Your task to perform on an android device: Go to Google Image 0: 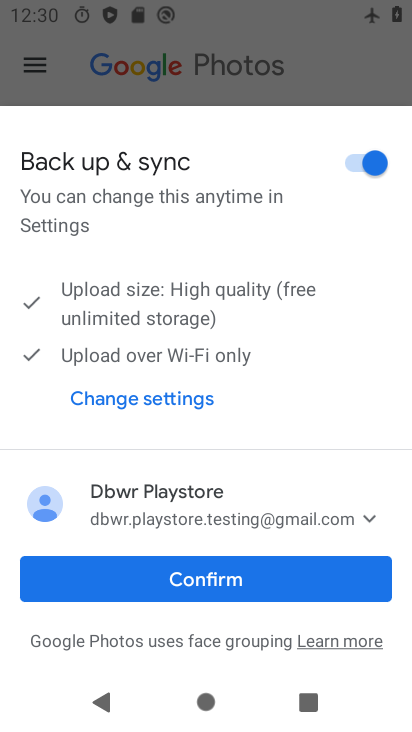
Step 0: press home button
Your task to perform on an android device: Go to Google Image 1: 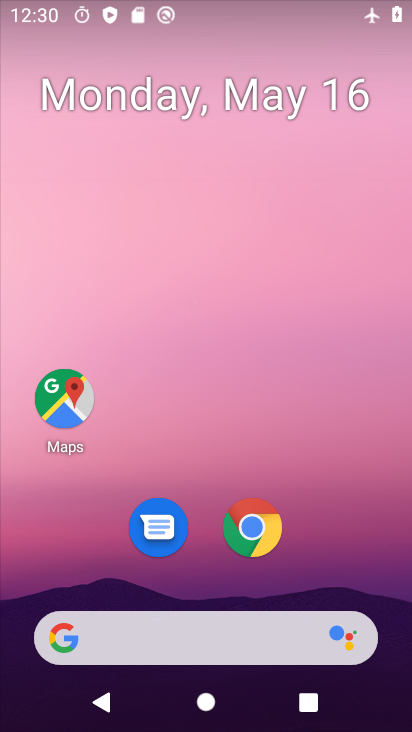
Step 1: drag from (197, 576) to (345, 175)
Your task to perform on an android device: Go to Google Image 2: 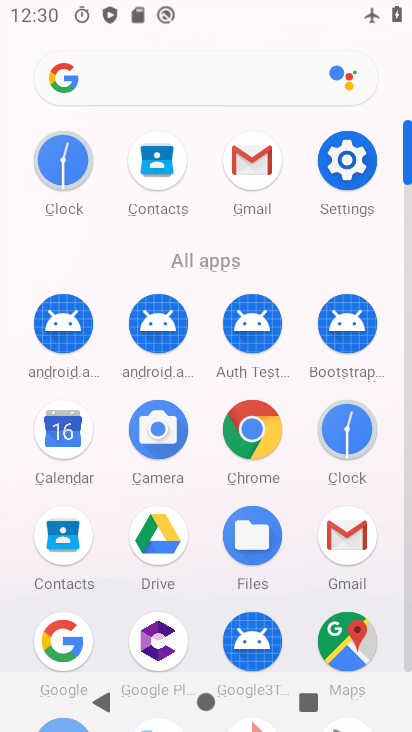
Step 2: click (77, 645)
Your task to perform on an android device: Go to Google Image 3: 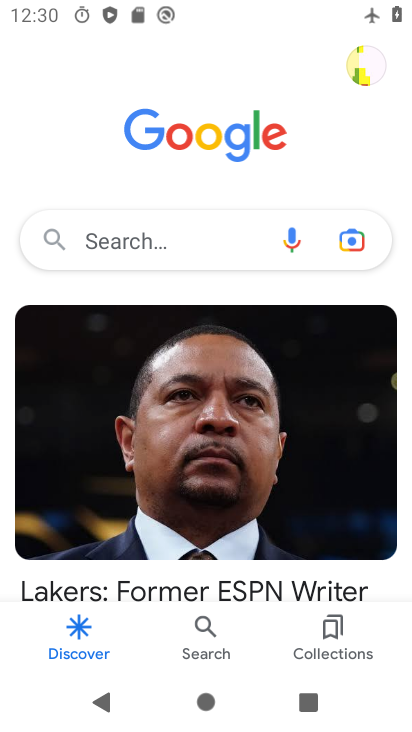
Step 3: task complete